Your task to perform on an android device: turn pop-ups on in chrome Image 0: 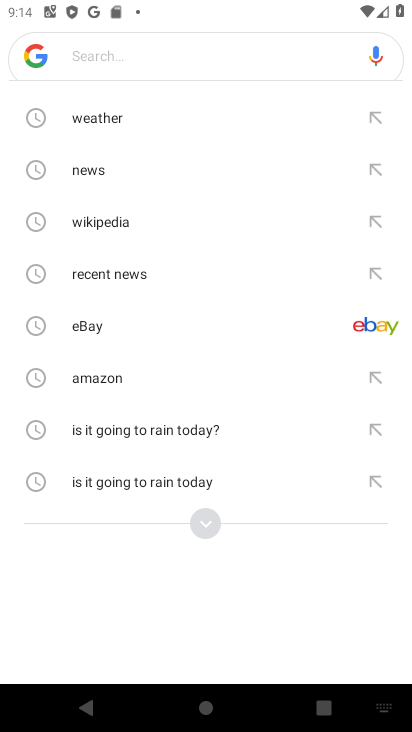
Step 0: press home button
Your task to perform on an android device: turn pop-ups on in chrome Image 1: 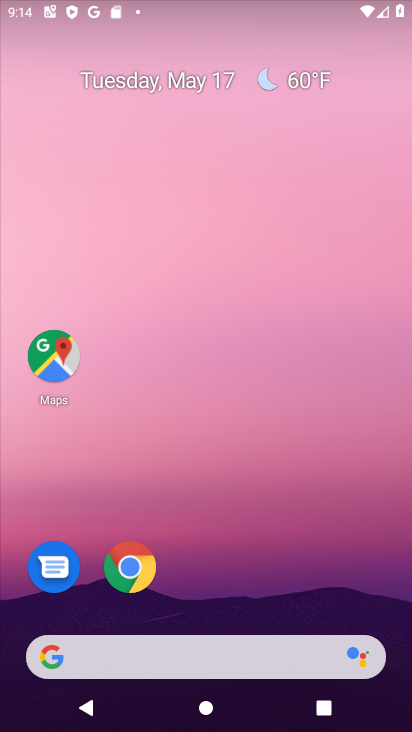
Step 1: drag from (365, 620) to (264, 45)
Your task to perform on an android device: turn pop-ups on in chrome Image 2: 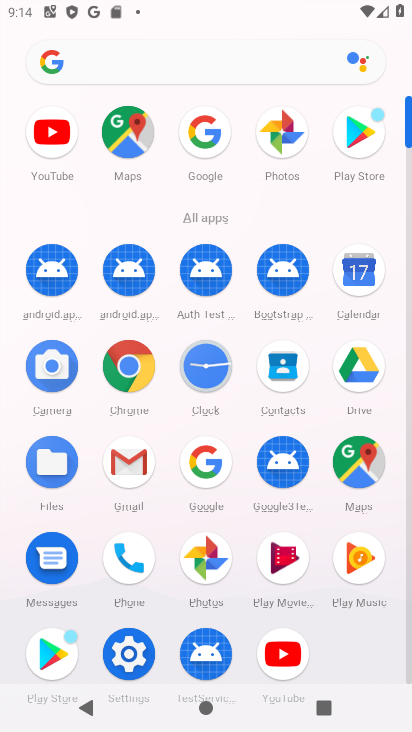
Step 2: click (126, 366)
Your task to perform on an android device: turn pop-ups on in chrome Image 3: 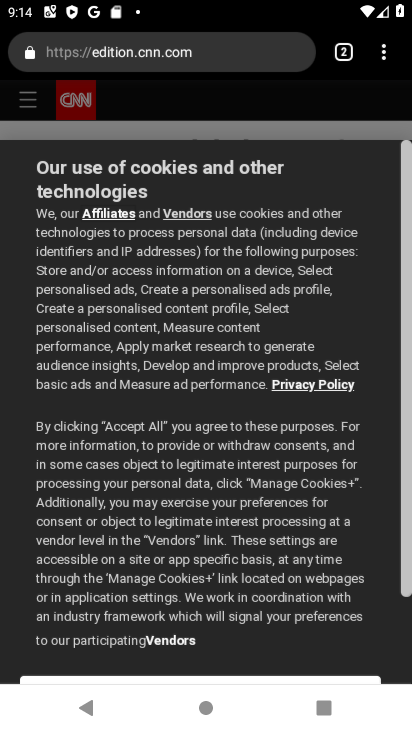
Step 3: press back button
Your task to perform on an android device: turn pop-ups on in chrome Image 4: 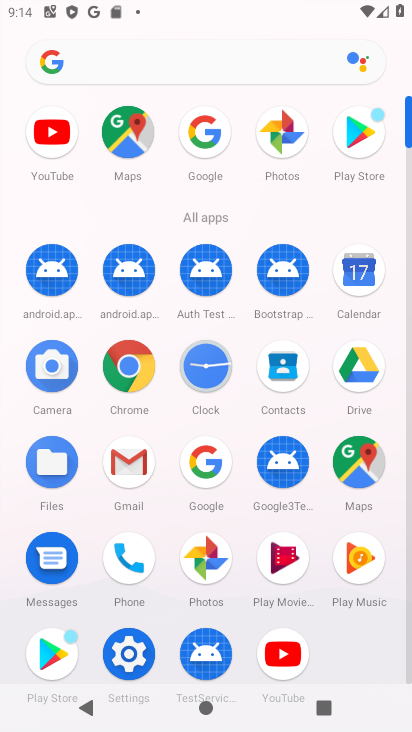
Step 4: click (137, 381)
Your task to perform on an android device: turn pop-ups on in chrome Image 5: 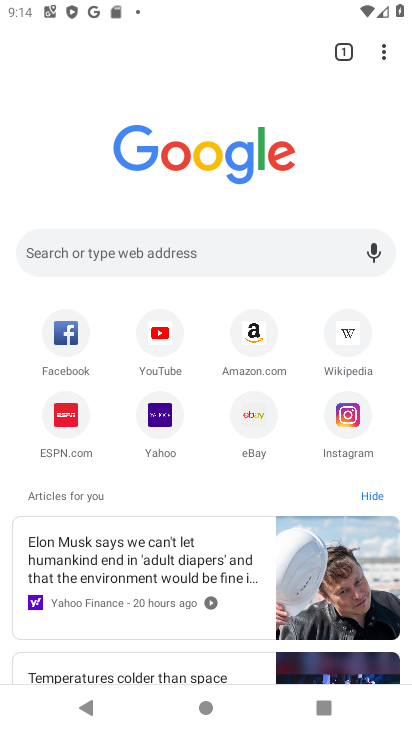
Step 5: click (340, 62)
Your task to perform on an android device: turn pop-ups on in chrome Image 6: 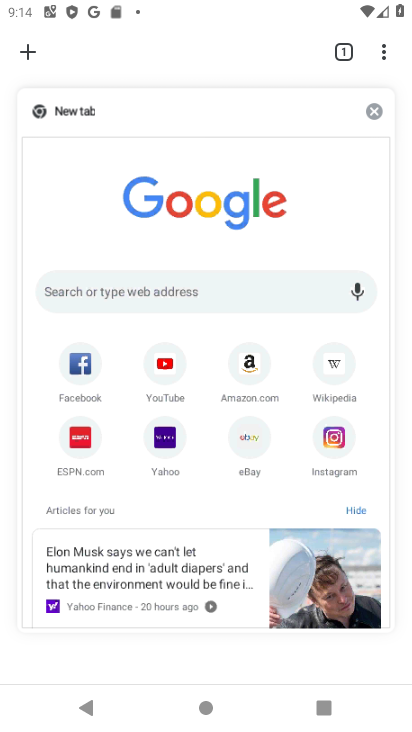
Step 6: click (222, 170)
Your task to perform on an android device: turn pop-ups on in chrome Image 7: 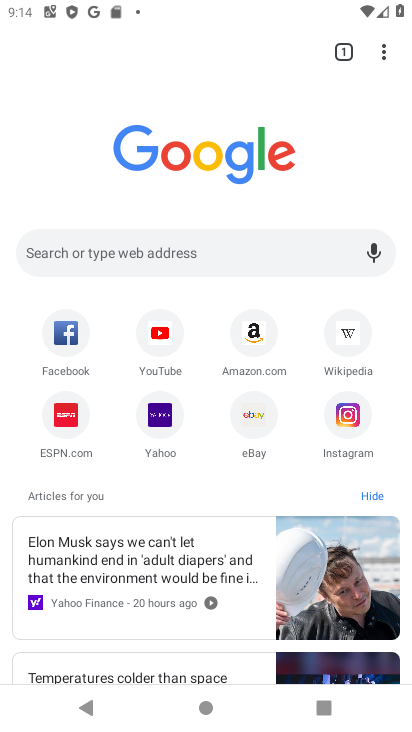
Step 7: click (386, 41)
Your task to perform on an android device: turn pop-ups on in chrome Image 8: 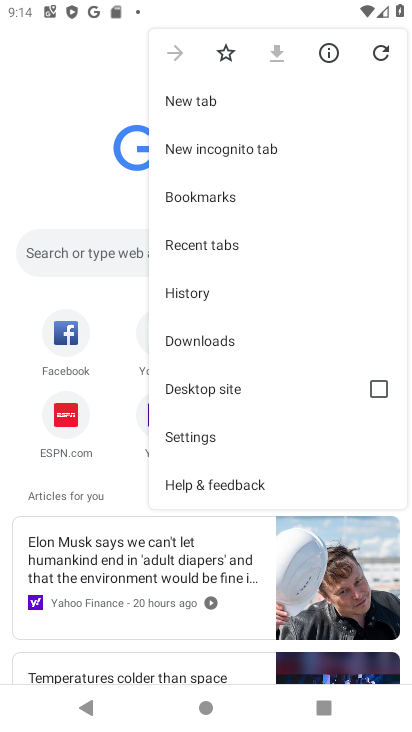
Step 8: click (235, 433)
Your task to perform on an android device: turn pop-ups on in chrome Image 9: 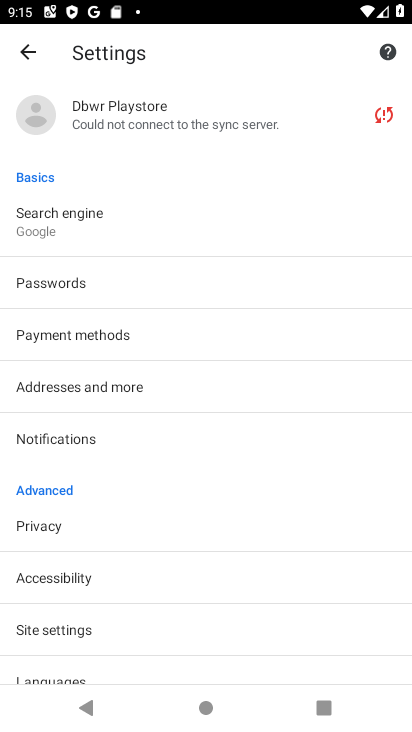
Step 9: click (93, 639)
Your task to perform on an android device: turn pop-ups on in chrome Image 10: 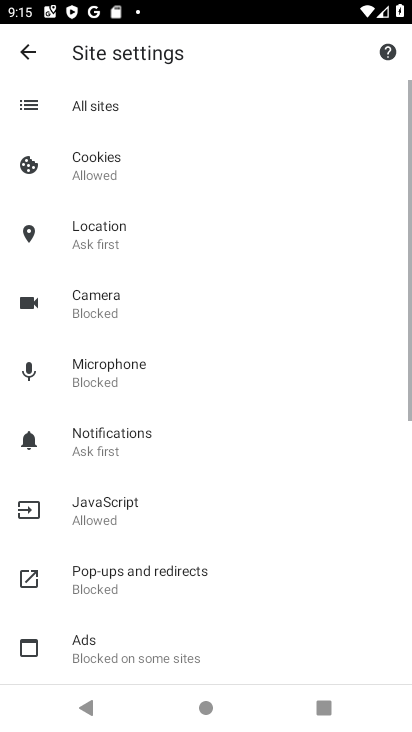
Step 10: click (117, 583)
Your task to perform on an android device: turn pop-ups on in chrome Image 11: 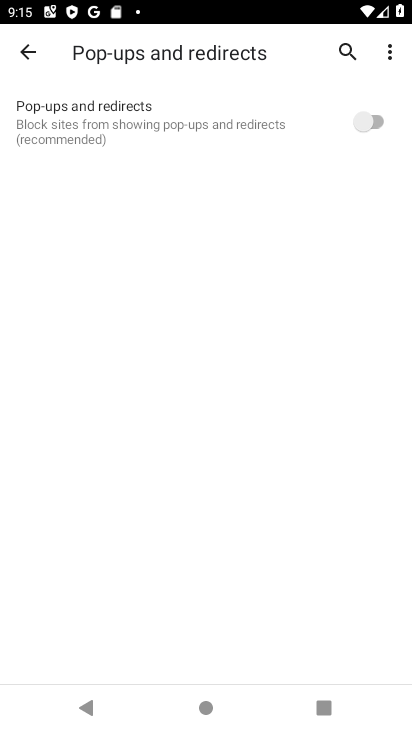
Step 11: click (368, 110)
Your task to perform on an android device: turn pop-ups on in chrome Image 12: 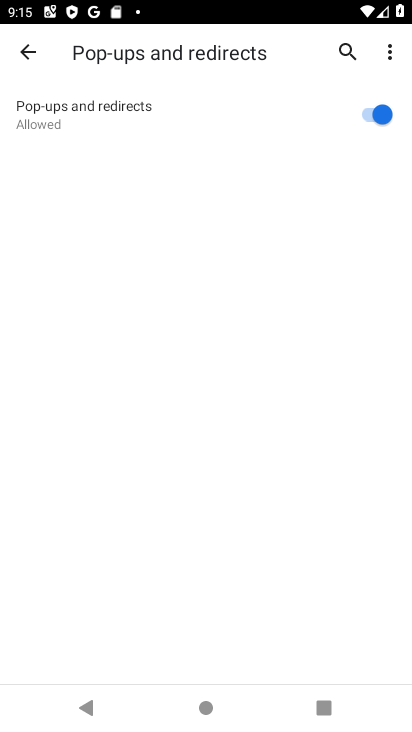
Step 12: task complete